Your task to perform on an android device: Open the Play Movies app and select the watchlist tab. Image 0: 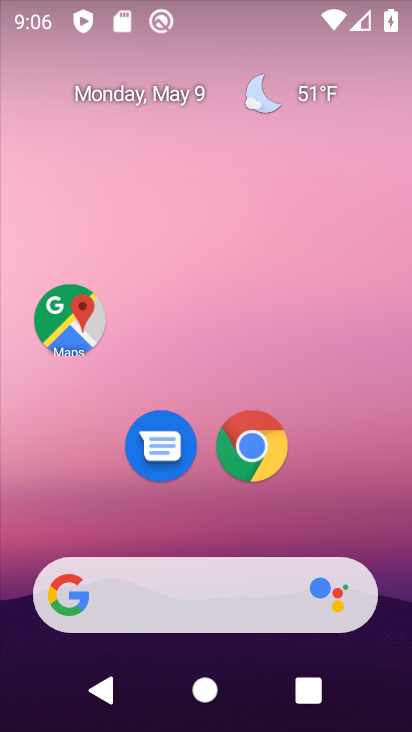
Step 0: drag from (355, 540) to (402, 13)
Your task to perform on an android device: Open the Play Movies app and select the watchlist tab. Image 1: 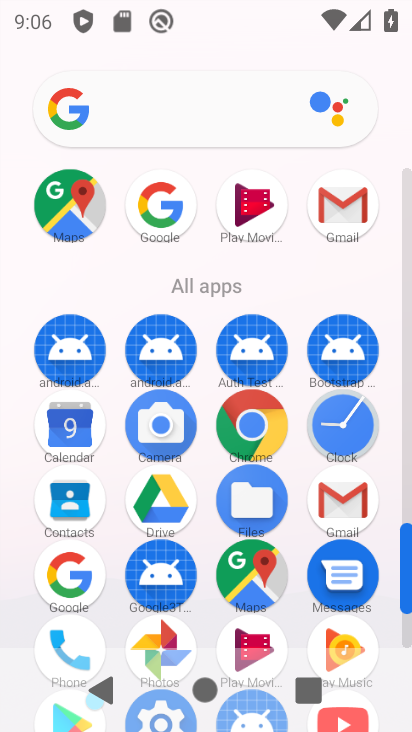
Step 1: drag from (343, 619) to (288, 78)
Your task to perform on an android device: Open the Play Movies app and select the watchlist tab. Image 2: 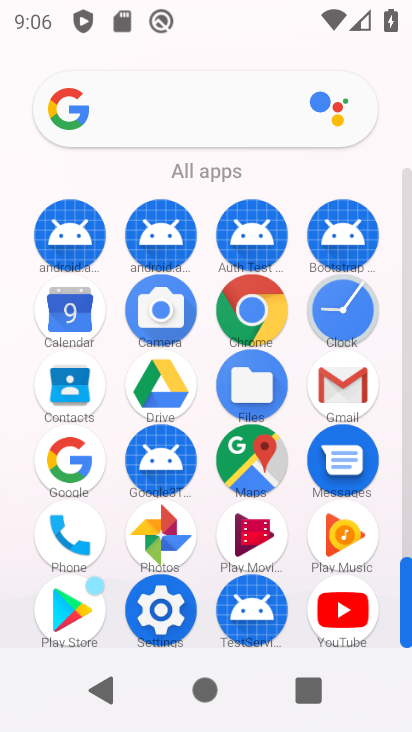
Step 2: click (245, 527)
Your task to perform on an android device: Open the Play Movies app and select the watchlist tab. Image 3: 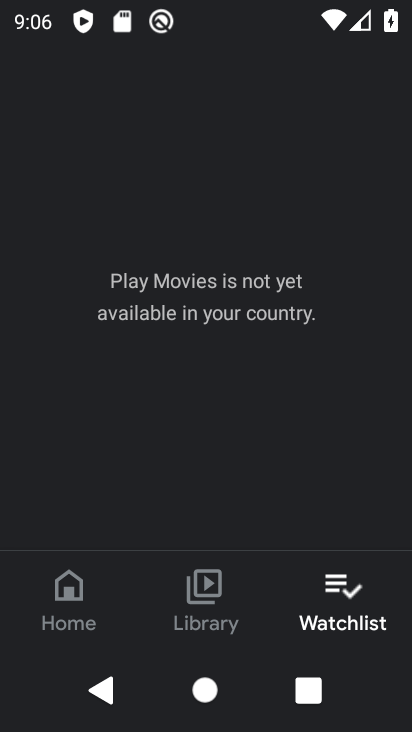
Step 3: click (330, 584)
Your task to perform on an android device: Open the Play Movies app and select the watchlist tab. Image 4: 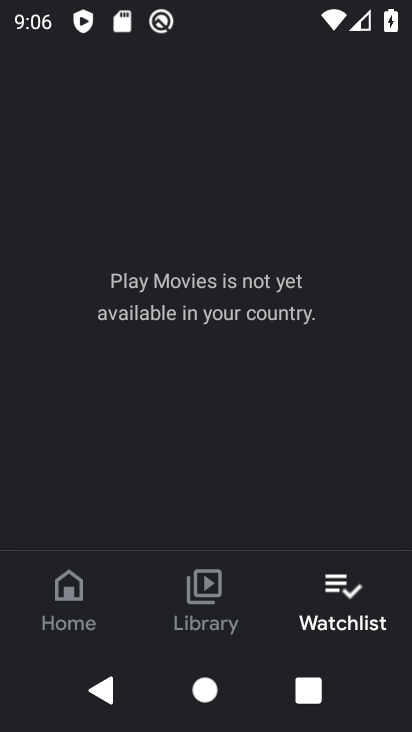
Step 4: task complete